Your task to perform on an android device: Go to wifi settings Image 0: 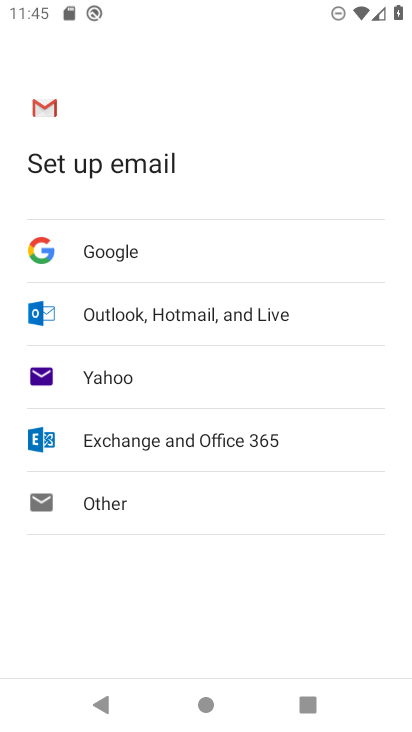
Step 0: press home button
Your task to perform on an android device: Go to wifi settings Image 1: 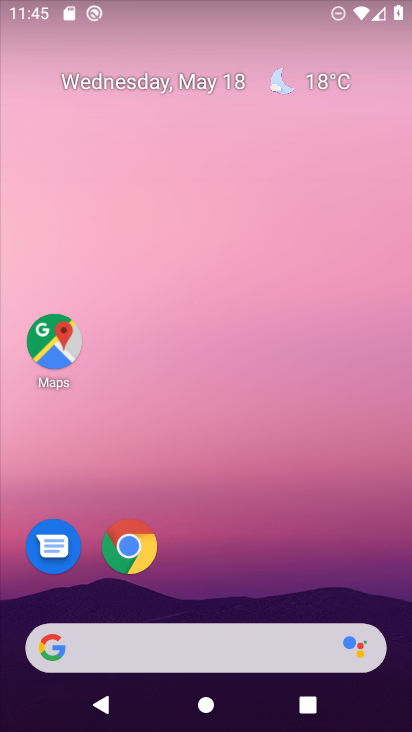
Step 1: drag from (245, 725) to (254, 353)
Your task to perform on an android device: Go to wifi settings Image 2: 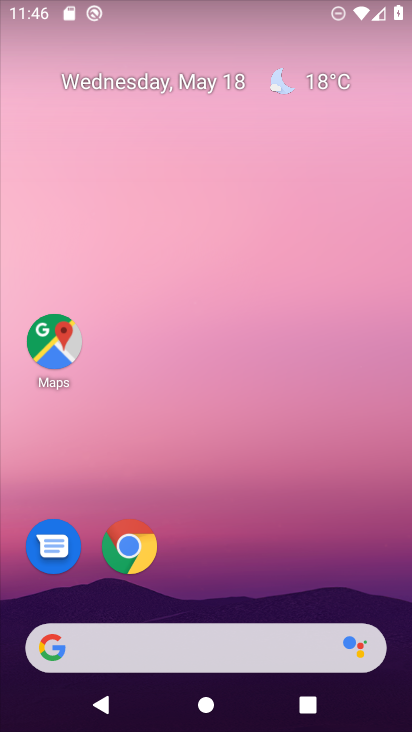
Step 2: drag from (230, 724) to (228, 44)
Your task to perform on an android device: Go to wifi settings Image 3: 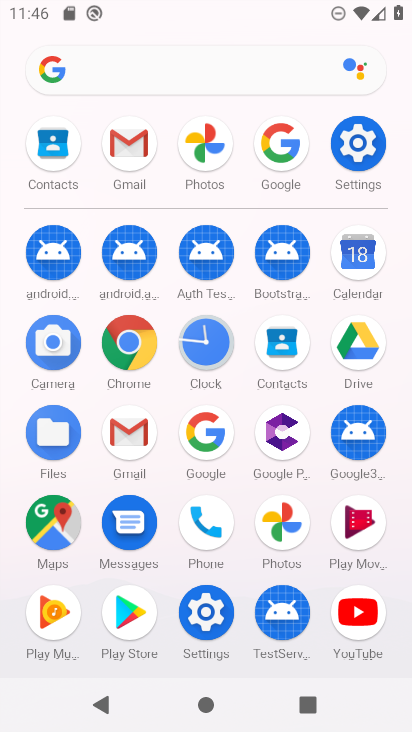
Step 3: click (363, 152)
Your task to perform on an android device: Go to wifi settings Image 4: 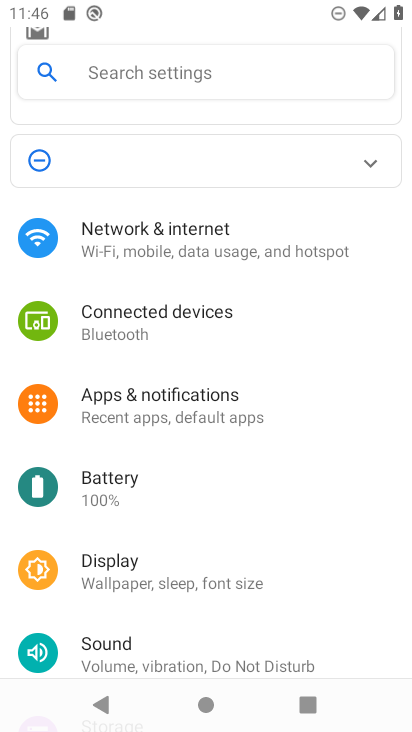
Step 4: click (166, 247)
Your task to perform on an android device: Go to wifi settings Image 5: 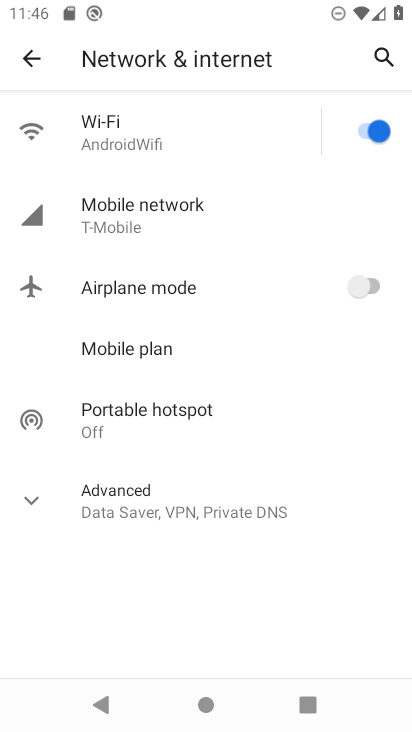
Step 5: click (119, 124)
Your task to perform on an android device: Go to wifi settings Image 6: 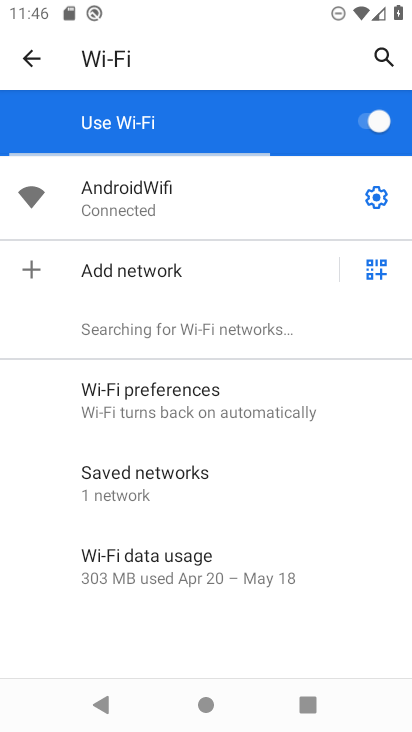
Step 6: task complete